Your task to perform on an android device: Open Chrome and go to settings Image 0: 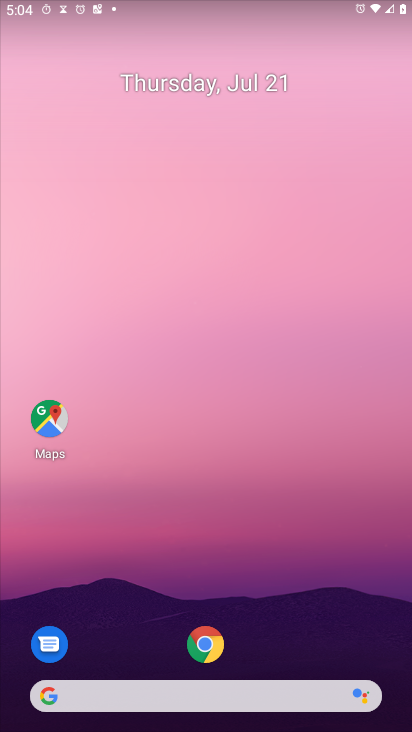
Step 0: press home button
Your task to perform on an android device: Open Chrome and go to settings Image 1: 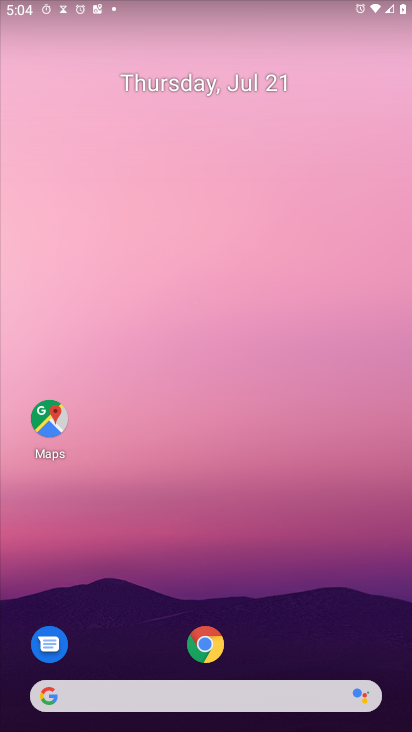
Step 1: click (202, 638)
Your task to perform on an android device: Open Chrome and go to settings Image 2: 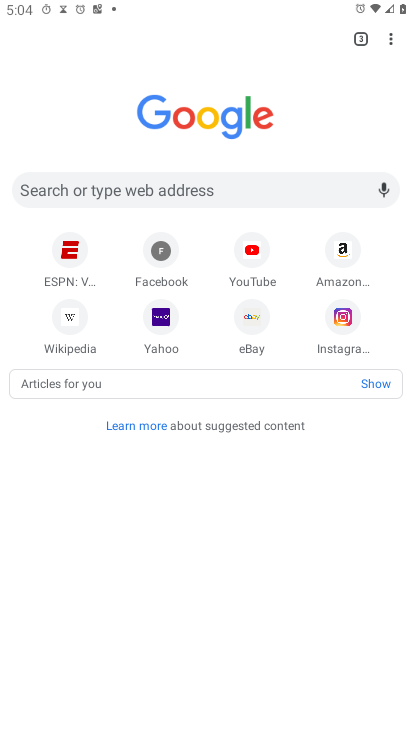
Step 2: task complete